Your task to perform on an android device: turn on notifications settings in the gmail app Image 0: 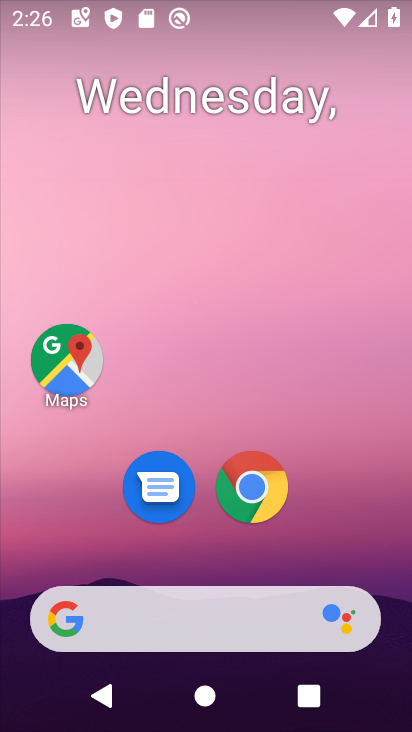
Step 0: drag from (329, 504) to (225, 64)
Your task to perform on an android device: turn on notifications settings in the gmail app Image 1: 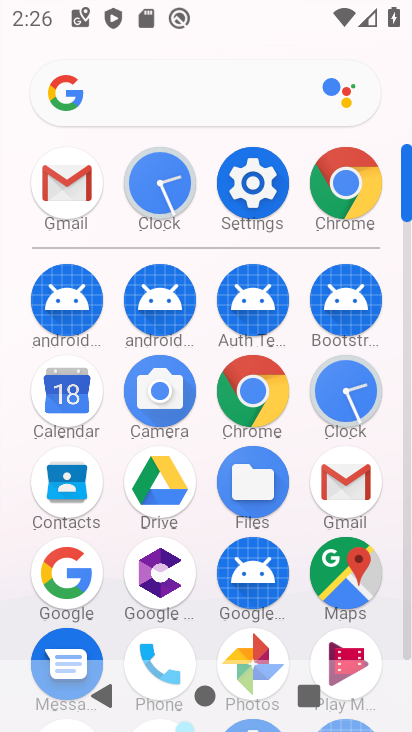
Step 1: click (54, 192)
Your task to perform on an android device: turn on notifications settings in the gmail app Image 2: 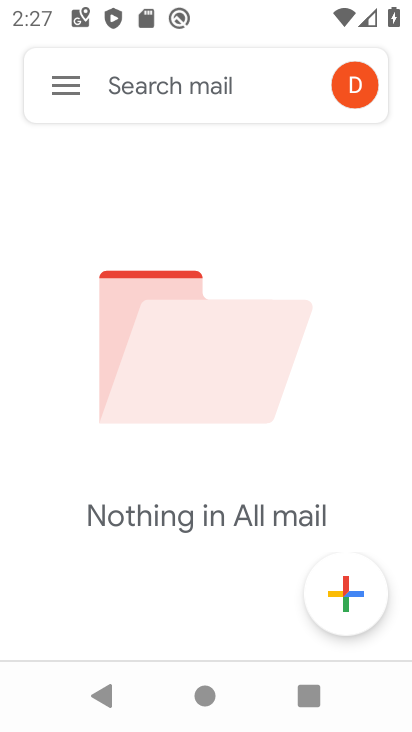
Step 2: click (67, 82)
Your task to perform on an android device: turn on notifications settings in the gmail app Image 3: 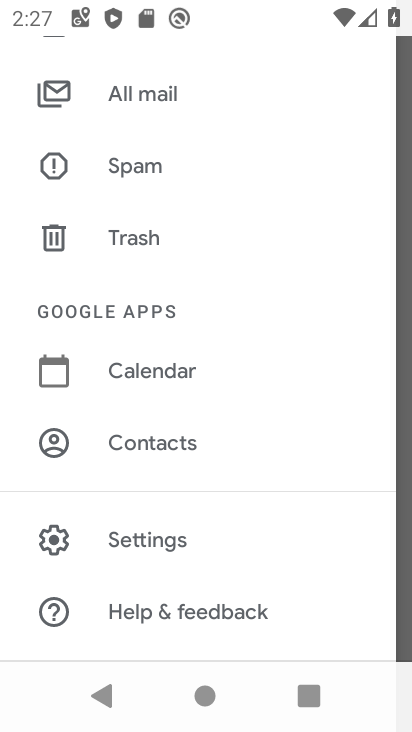
Step 3: click (146, 546)
Your task to perform on an android device: turn on notifications settings in the gmail app Image 4: 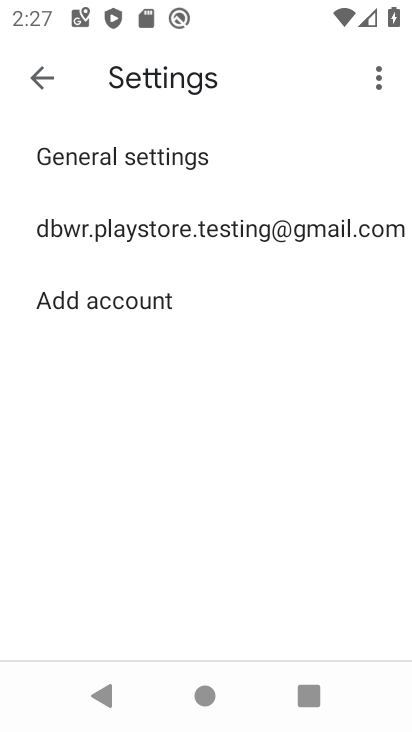
Step 4: click (141, 146)
Your task to perform on an android device: turn on notifications settings in the gmail app Image 5: 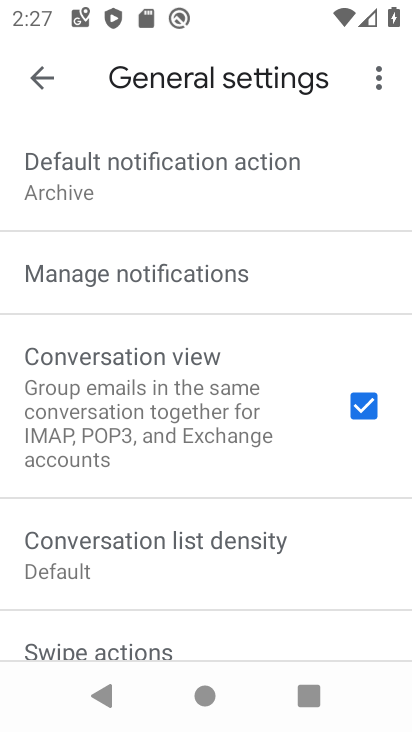
Step 5: click (131, 264)
Your task to perform on an android device: turn on notifications settings in the gmail app Image 6: 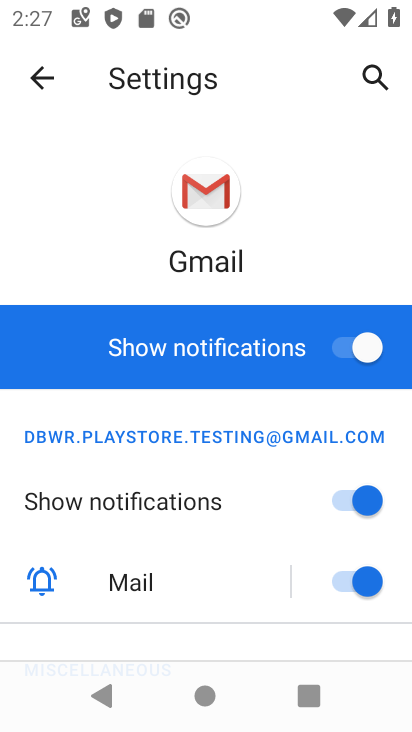
Step 6: task complete